Your task to perform on an android device: check the backup settings in the google photos Image 0: 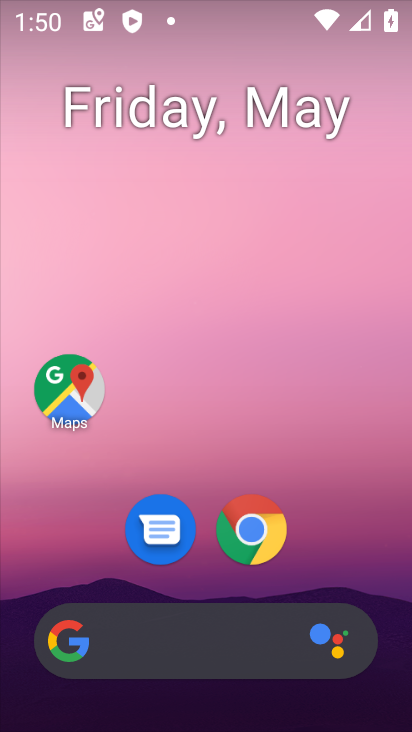
Step 0: drag from (338, 562) to (282, 137)
Your task to perform on an android device: check the backup settings in the google photos Image 1: 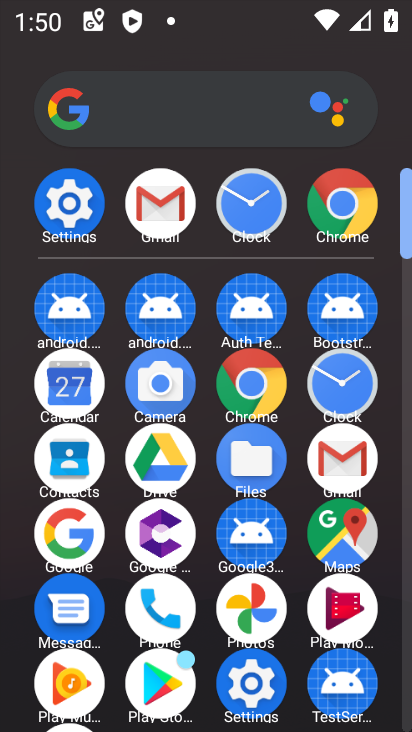
Step 1: click (252, 627)
Your task to perform on an android device: check the backup settings in the google photos Image 2: 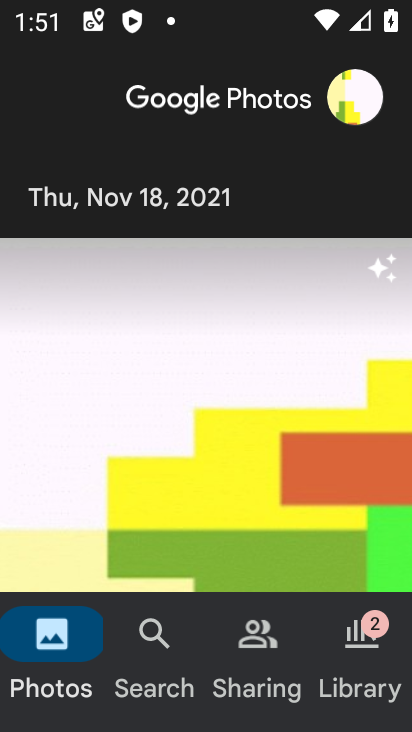
Step 2: click (386, 664)
Your task to perform on an android device: check the backup settings in the google photos Image 3: 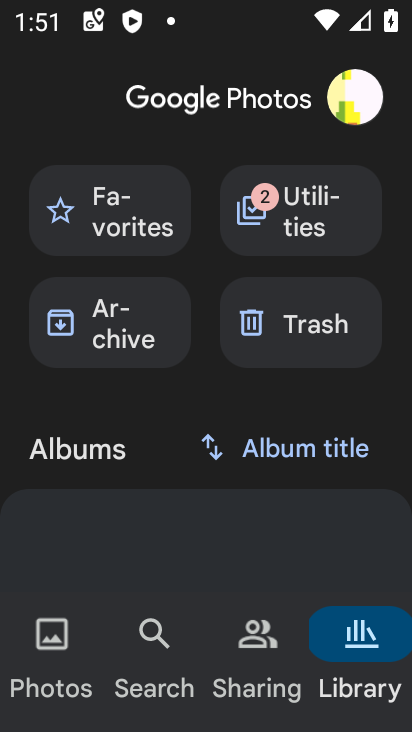
Step 3: click (361, 90)
Your task to perform on an android device: check the backup settings in the google photos Image 4: 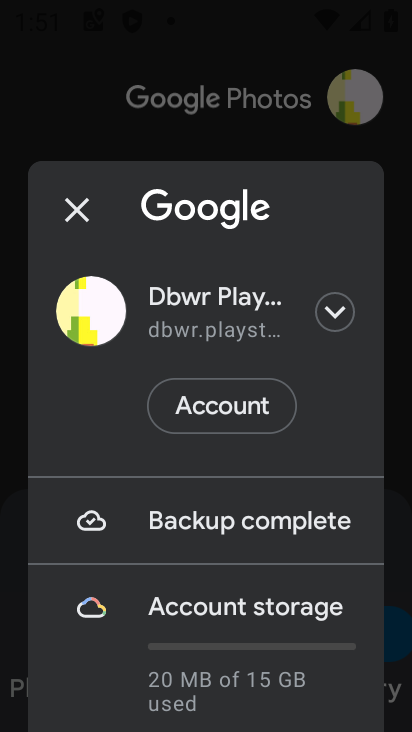
Step 4: click (242, 506)
Your task to perform on an android device: check the backup settings in the google photos Image 5: 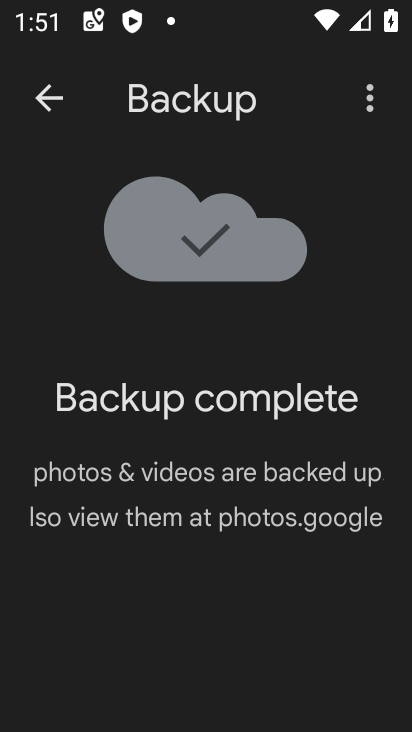
Step 5: task complete